Your task to perform on an android device: Go to Google Image 0: 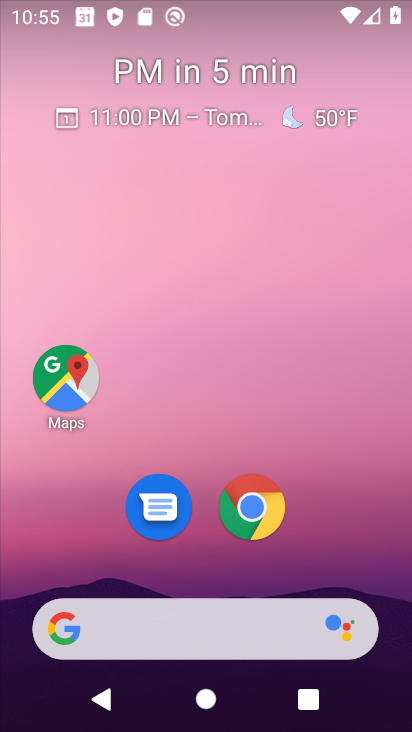
Step 0: drag from (295, 570) to (334, 177)
Your task to perform on an android device: Go to Google Image 1: 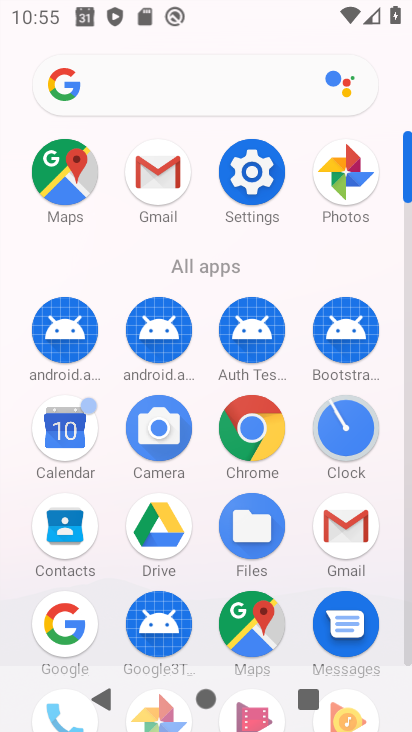
Step 1: drag from (228, 570) to (291, 257)
Your task to perform on an android device: Go to Google Image 2: 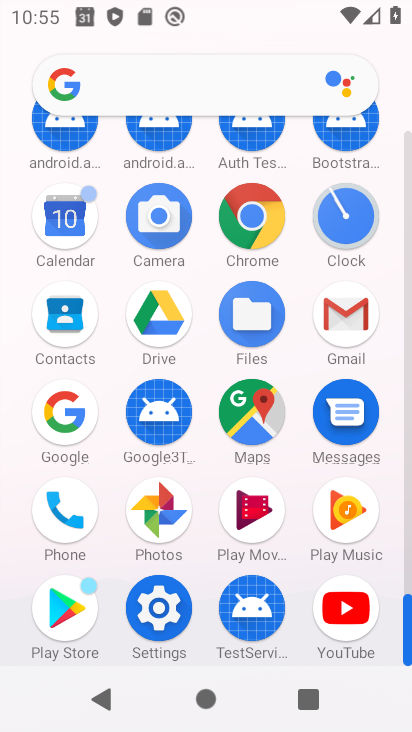
Step 2: click (66, 400)
Your task to perform on an android device: Go to Google Image 3: 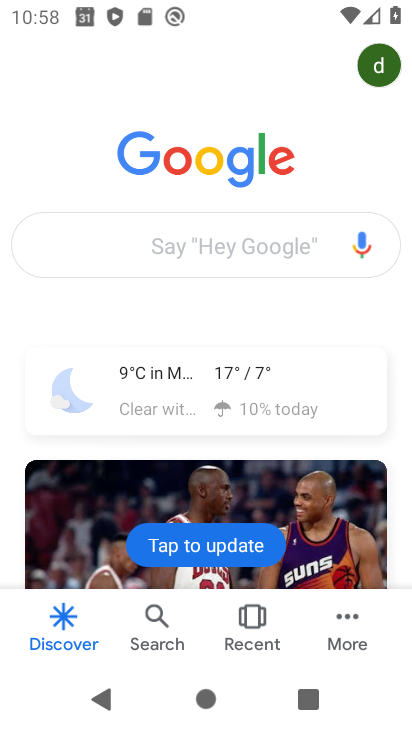
Step 3: task complete